Your task to perform on an android device: toggle airplane mode Image 0: 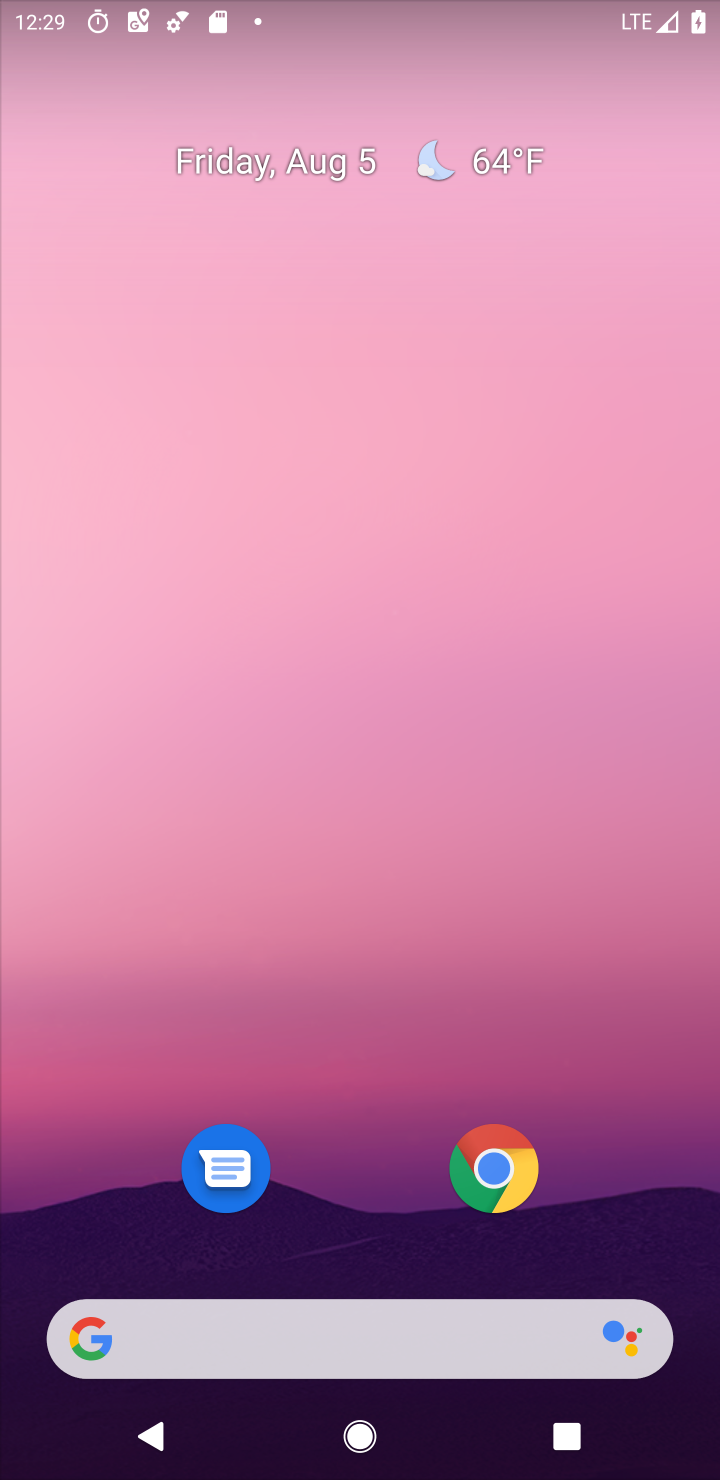
Step 0: drag from (352, 1213) to (192, 11)
Your task to perform on an android device: toggle airplane mode Image 1: 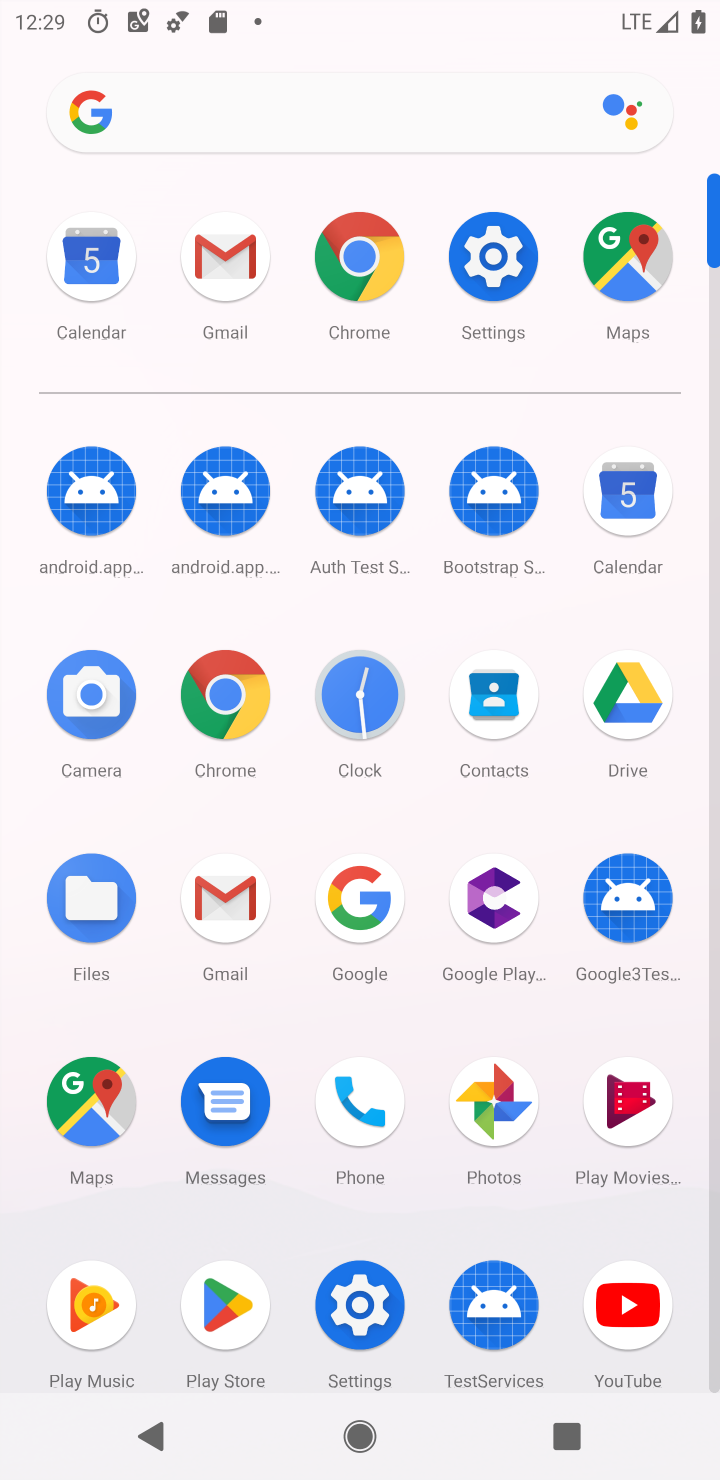
Step 1: click (372, 1322)
Your task to perform on an android device: toggle airplane mode Image 2: 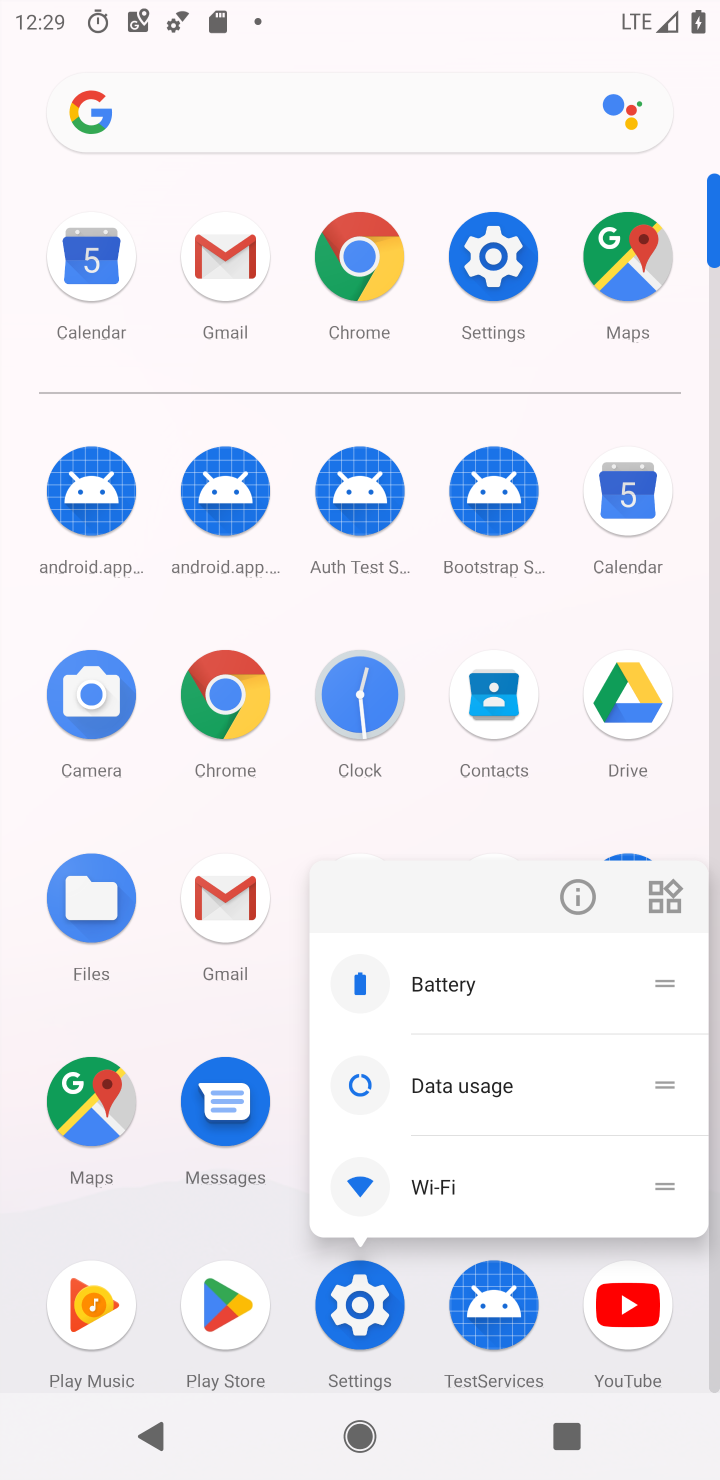
Step 2: click (369, 1289)
Your task to perform on an android device: toggle airplane mode Image 3: 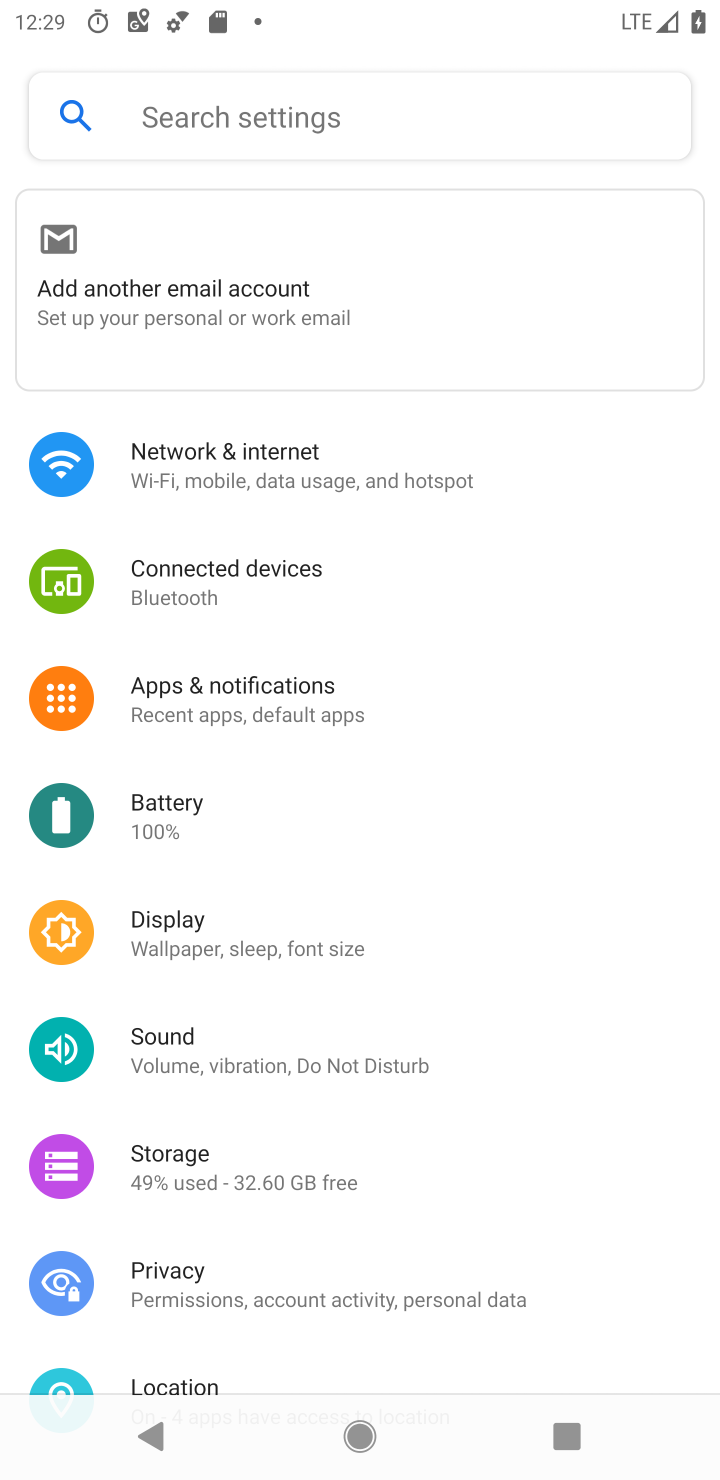
Step 3: click (259, 461)
Your task to perform on an android device: toggle airplane mode Image 4: 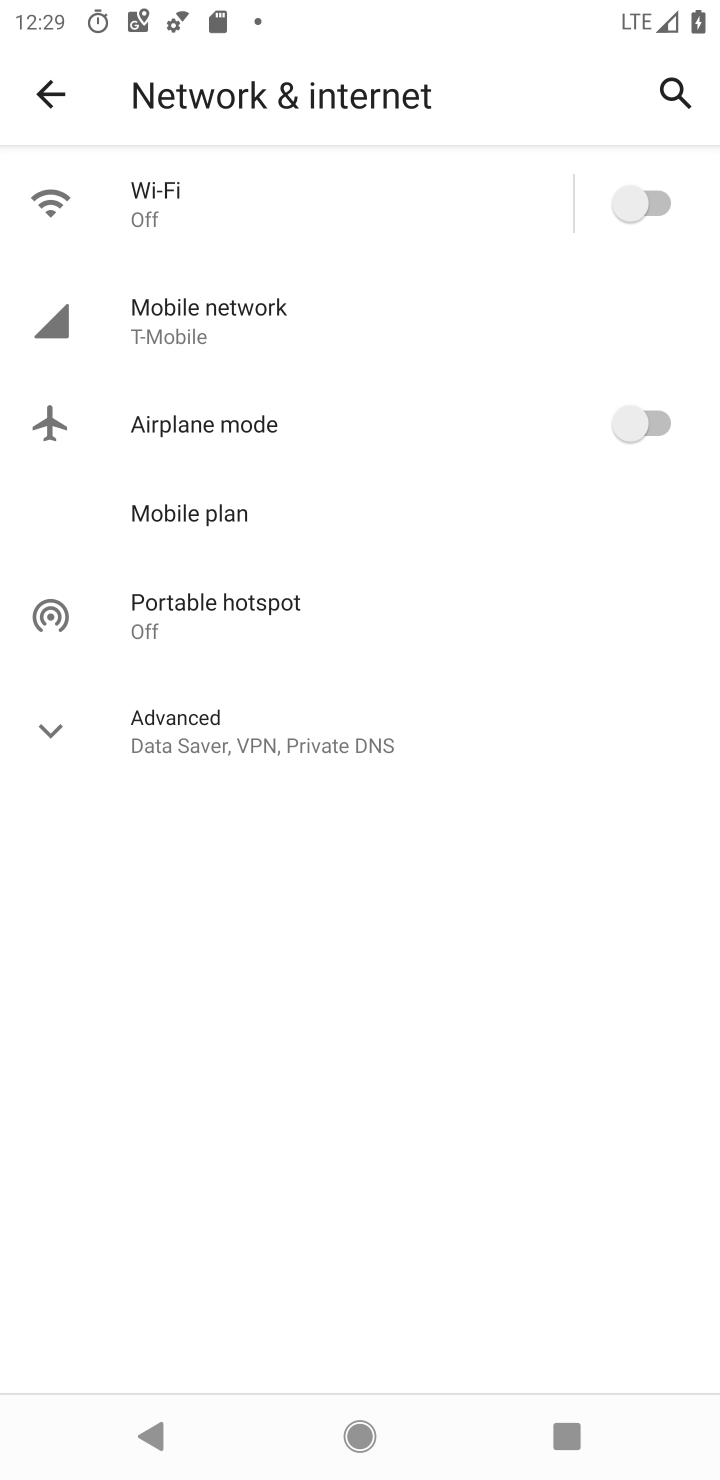
Step 4: click (645, 435)
Your task to perform on an android device: toggle airplane mode Image 5: 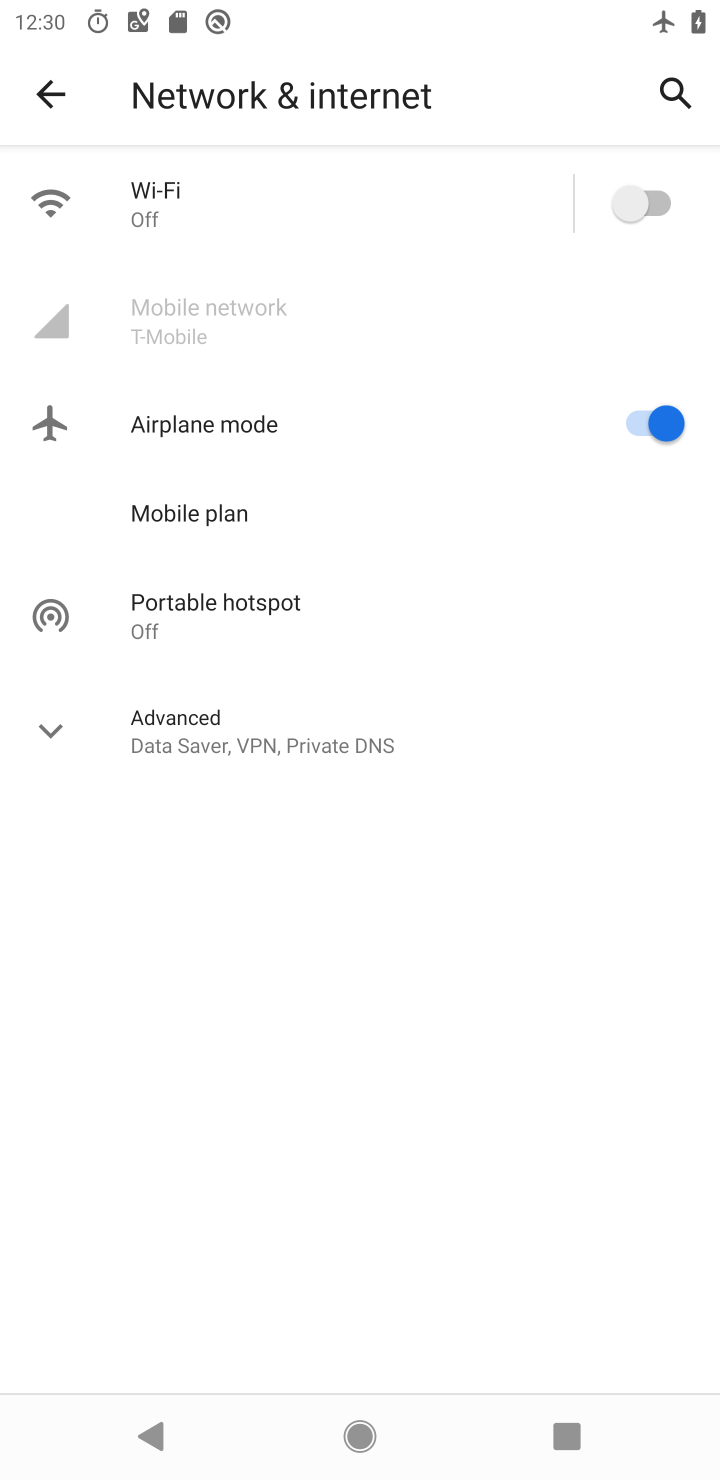
Step 5: task complete